Your task to perform on an android device: Go to settings Image 0: 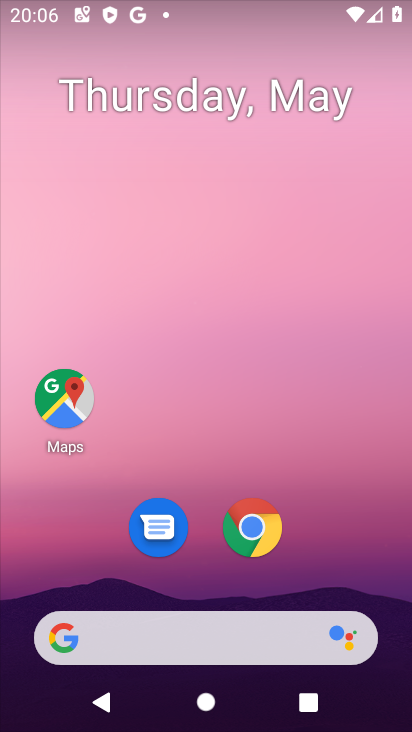
Step 0: drag from (66, 563) to (328, 25)
Your task to perform on an android device: Go to settings Image 1: 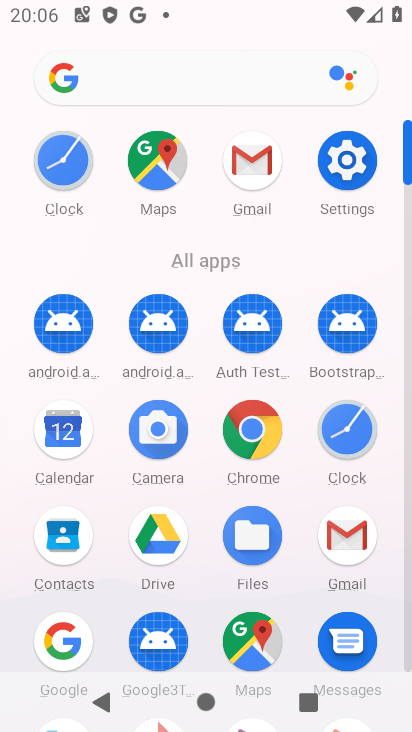
Step 1: click (358, 160)
Your task to perform on an android device: Go to settings Image 2: 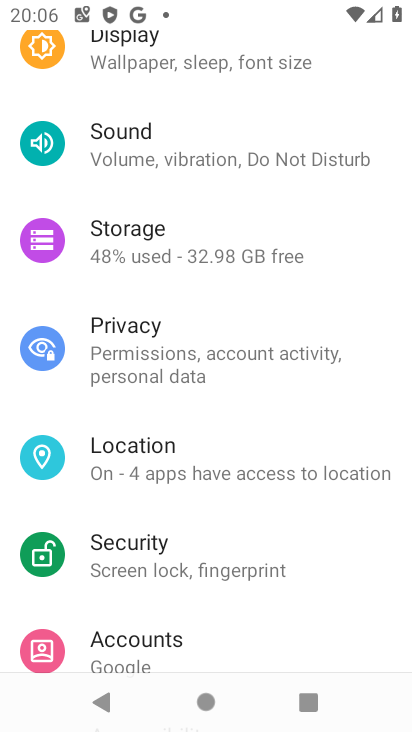
Step 2: task complete